Your task to perform on an android device: Do I have any events this weekend? Image 0: 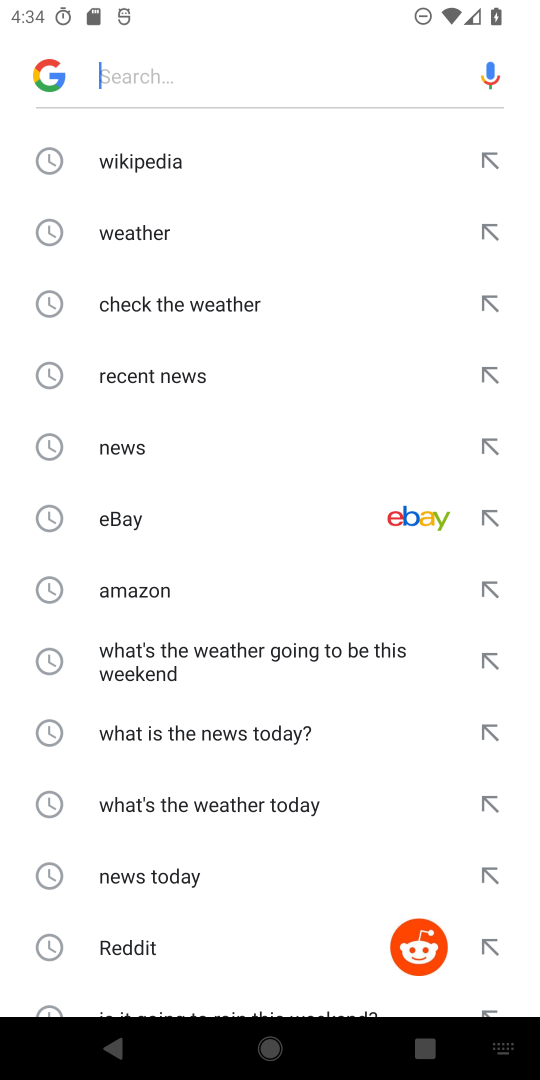
Step 0: press home button
Your task to perform on an android device: Do I have any events this weekend? Image 1: 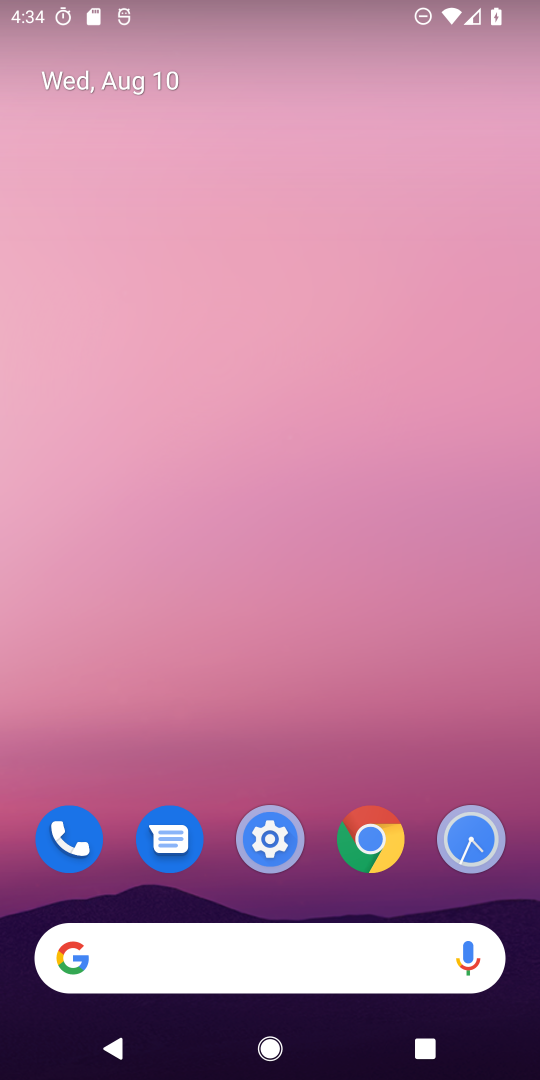
Step 1: task complete